Your task to perform on an android device: Open Maps and search for coffee Image 0: 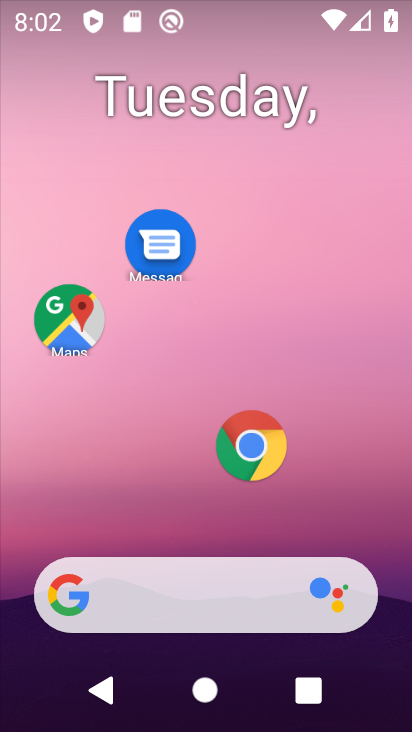
Step 0: click (67, 323)
Your task to perform on an android device: Open Maps and search for coffee Image 1: 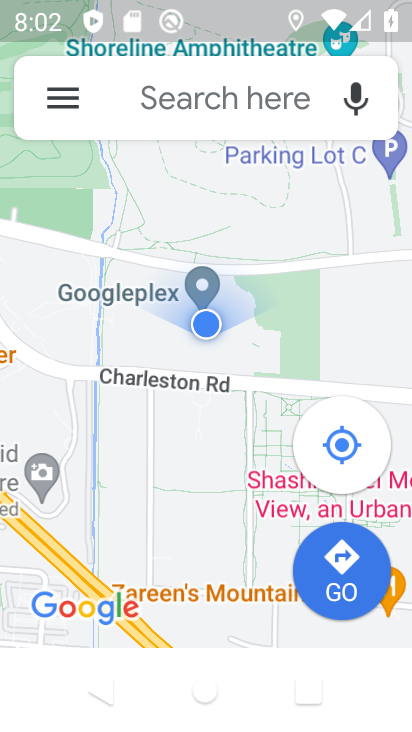
Step 1: click (131, 97)
Your task to perform on an android device: Open Maps and search for coffee Image 2: 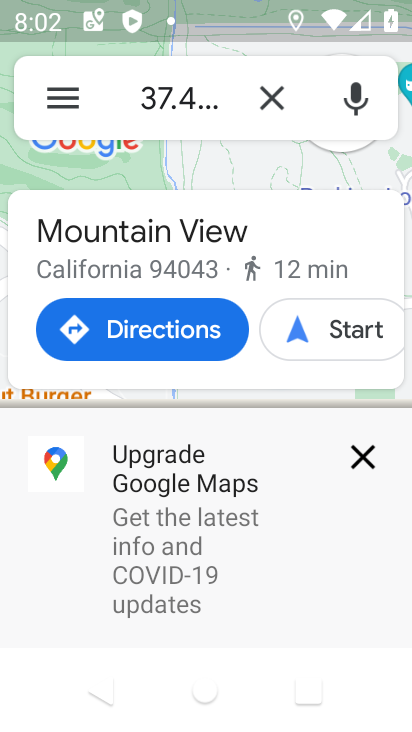
Step 2: click (262, 107)
Your task to perform on an android device: Open Maps and search for coffee Image 3: 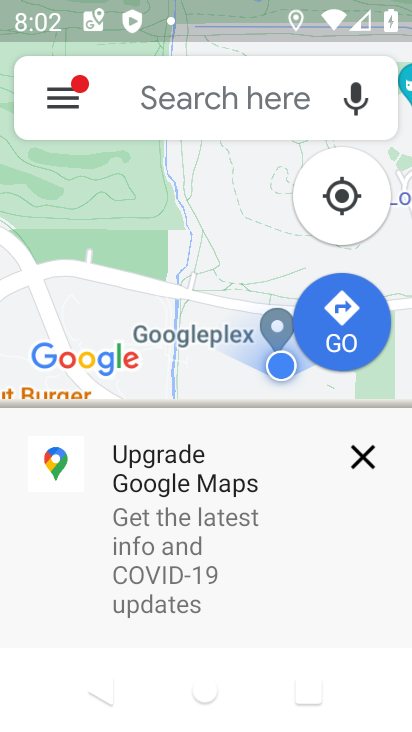
Step 3: click (230, 103)
Your task to perform on an android device: Open Maps and search for coffee Image 4: 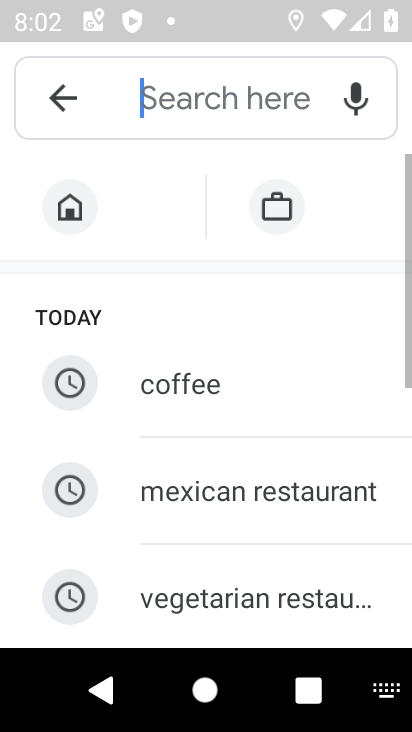
Step 4: click (205, 403)
Your task to perform on an android device: Open Maps and search for coffee Image 5: 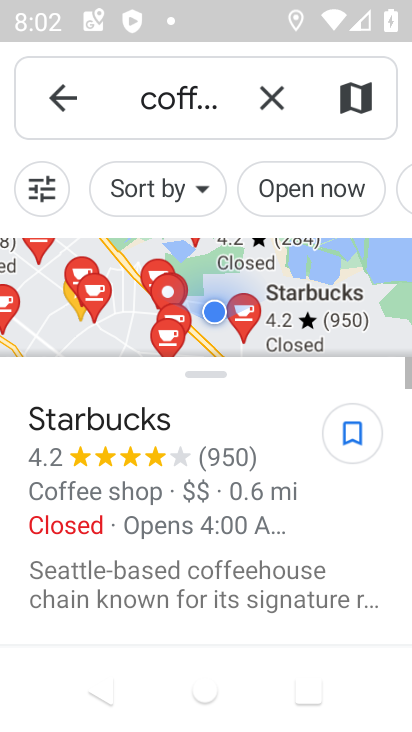
Step 5: task complete